Your task to perform on an android device: Show me productivity apps on the Play Store Image 0: 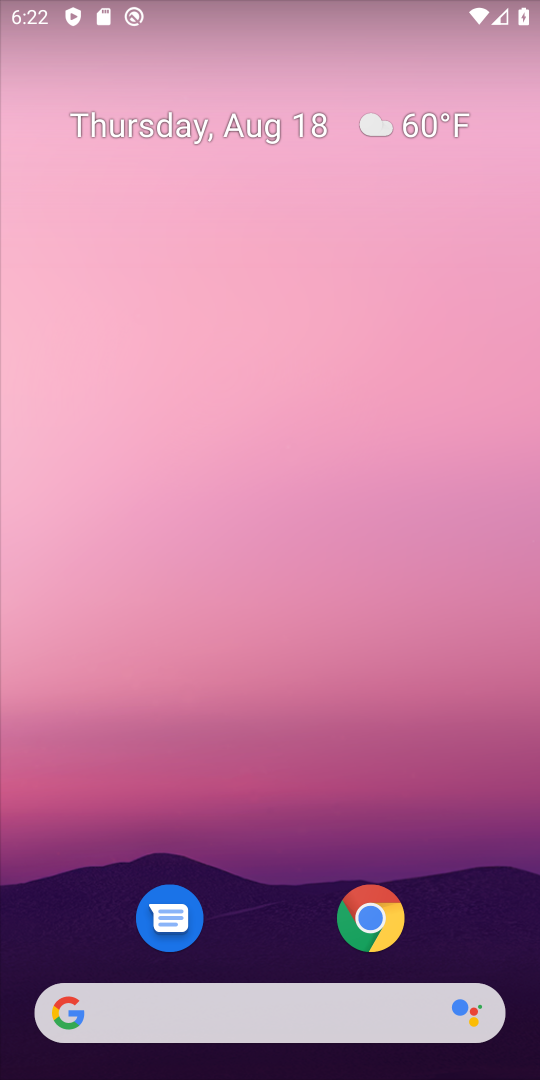
Step 0: drag from (269, 958) to (370, 158)
Your task to perform on an android device: Show me productivity apps on the Play Store Image 1: 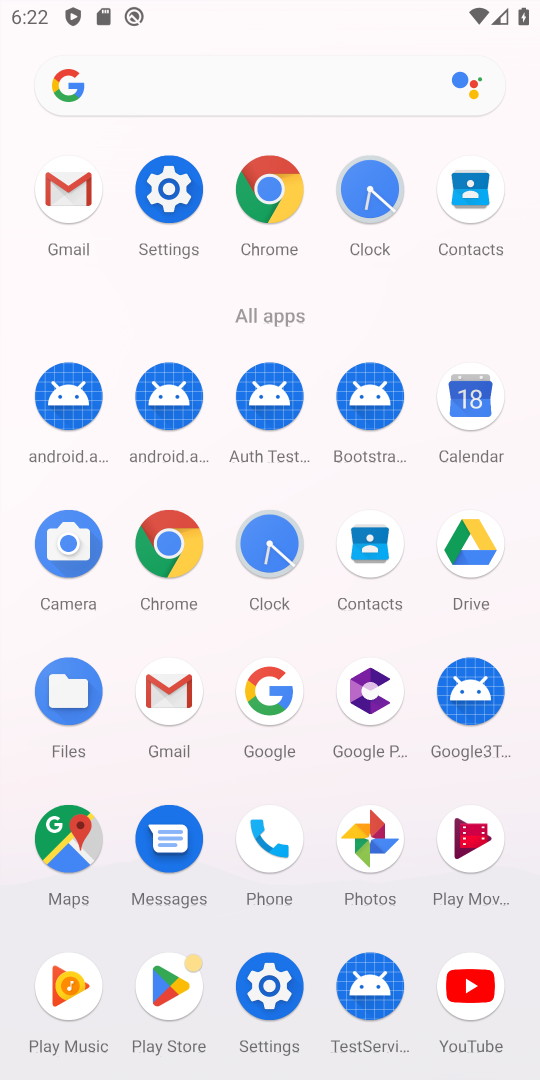
Step 1: click (171, 1003)
Your task to perform on an android device: Show me productivity apps on the Play Store Image 2: 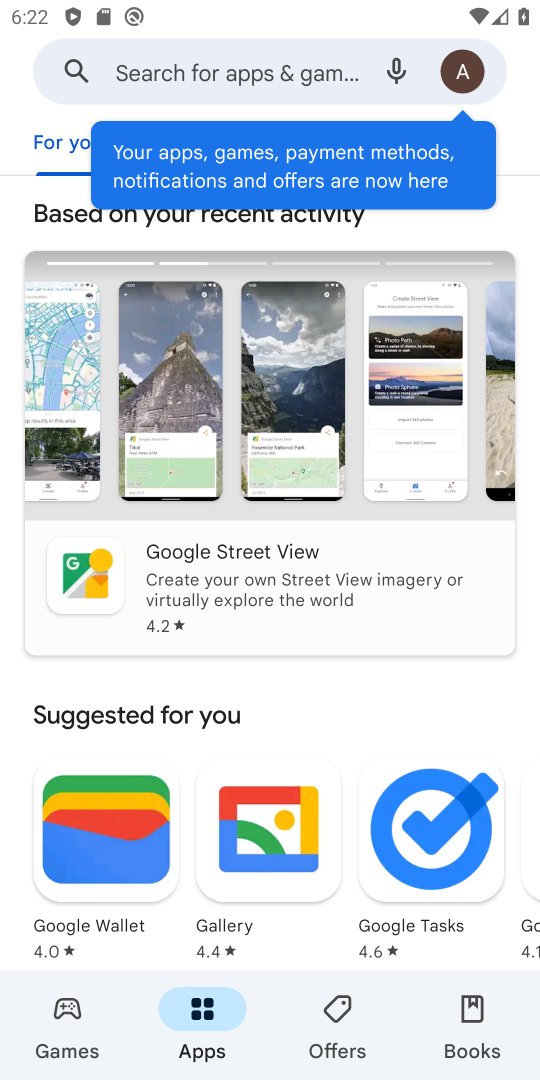
Step 2: click (257, 76)
Your task to perform on an android device: Show me productivity apps on the Play Store Image 3: 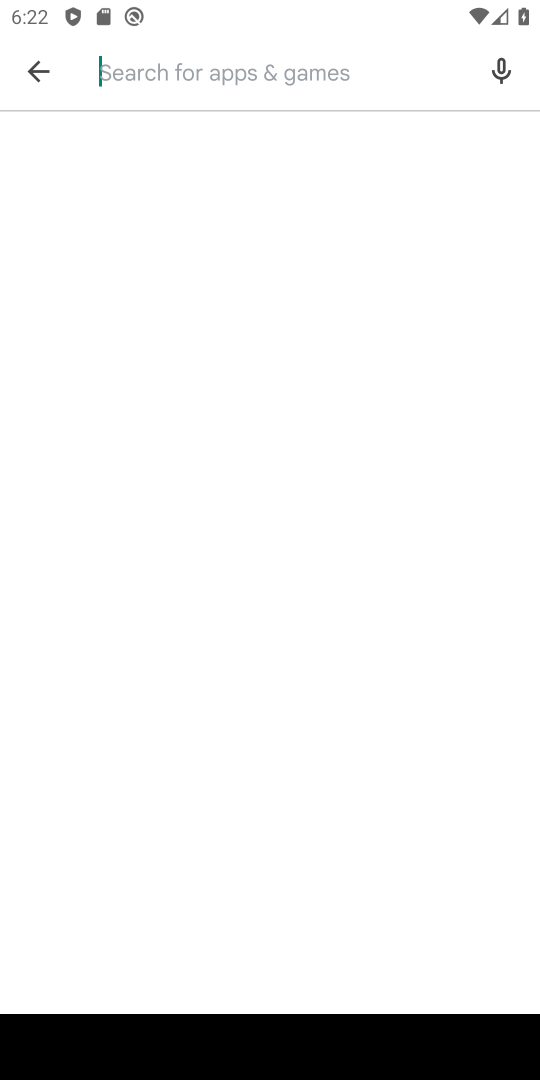
Step 3: press enter
Your task to perform on an android device: Show me productivity apps on the Play Store Image 4: 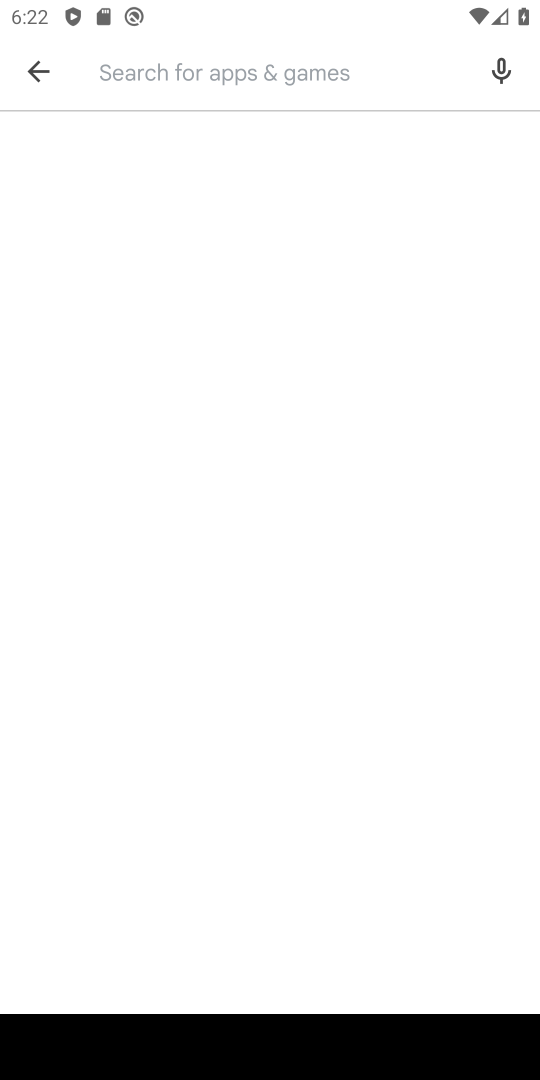
Step 4: type "productivity "
Your task to perform on an android device: Show me productivity apps on the Play Store Image 5: 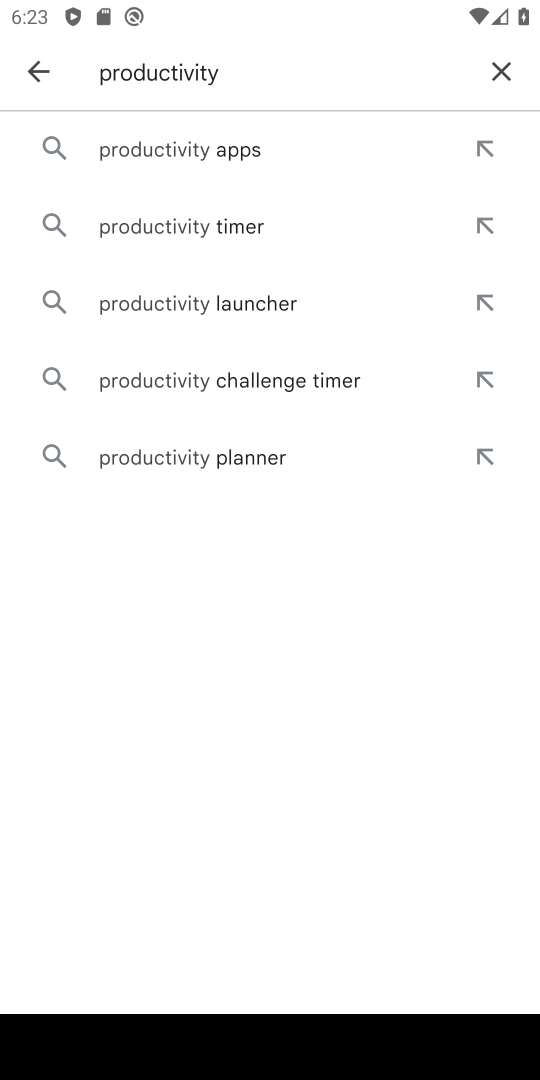
Step 5: click (165, 154)
Your task to perform on an android device: Show me productivity apps on the Play Store Image 6: 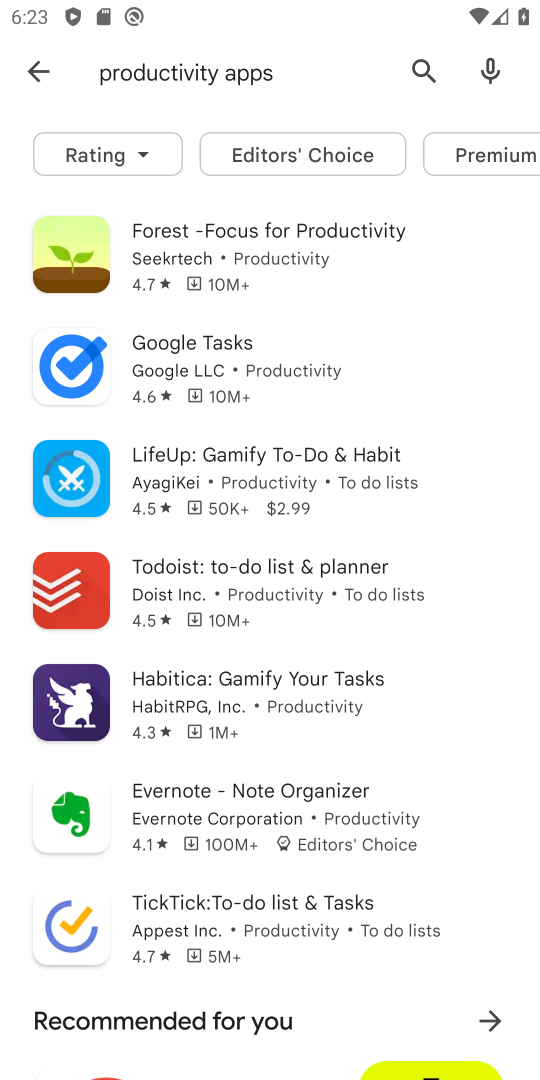
Step 6: task complete